Your task to perform on an android device: refresh tabs in the chrome app Image 0: 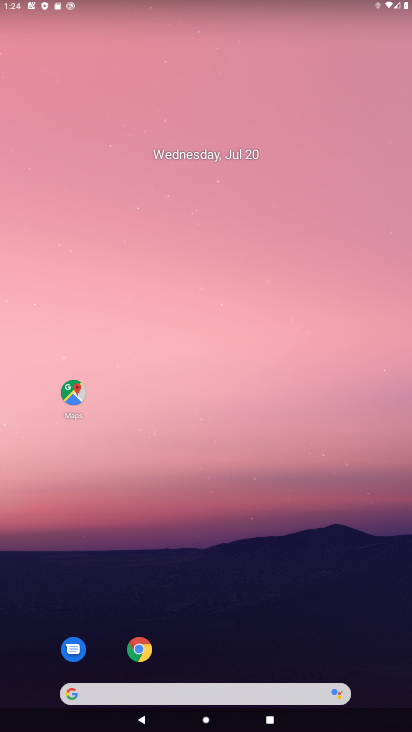
Step 0: press home button
Your task to perform on an android device: refresh tabs in the chrome app Image 1: 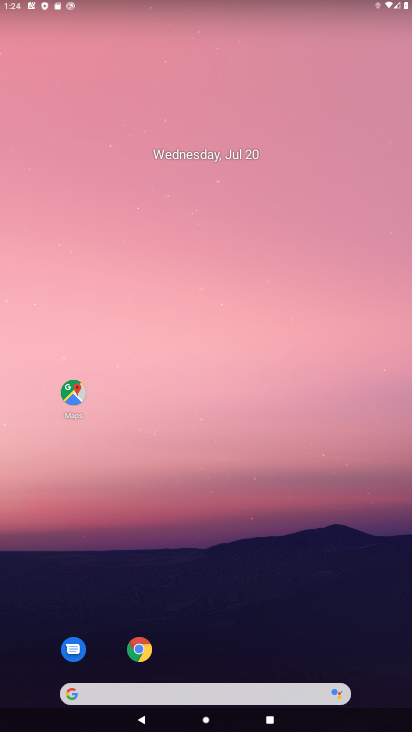
Step 1: press home button
Your task to perform on an android device: refresh tabs in the chrome app Image 2: 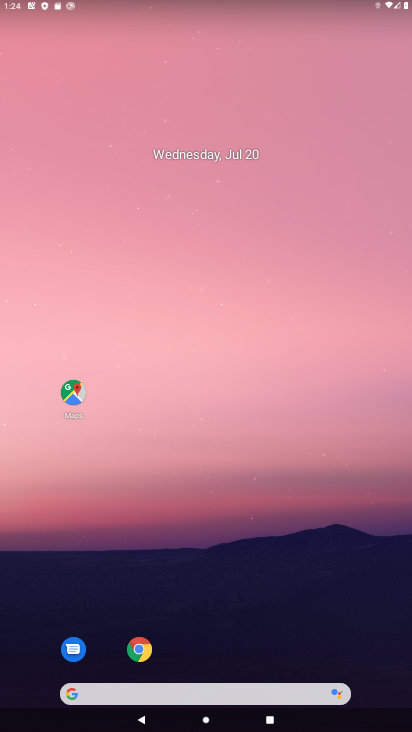
Step 2: click (133, 653)
Your task to perform on an android device: refresh tabs in the chrome app Image 3: 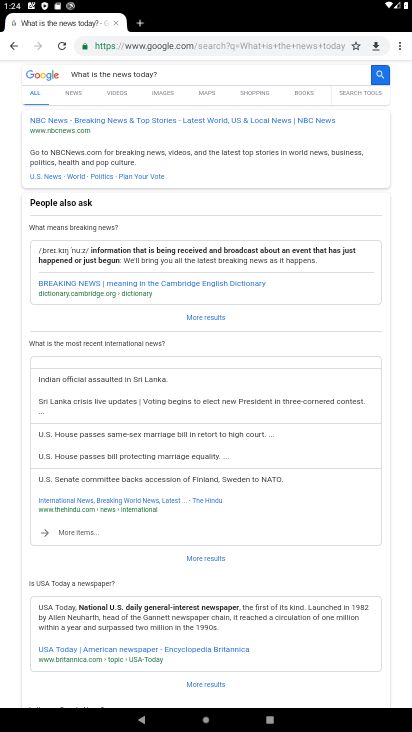
Step 3: click (57, 50)
Your task to perform on an android device: refresh tabs in the chrome app Image 4: 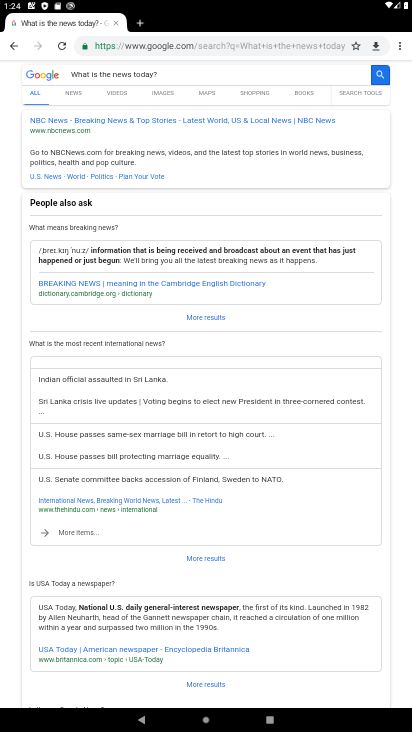
Step 4: task complete